Your task to perform on an android device: change the clock style Image 0: 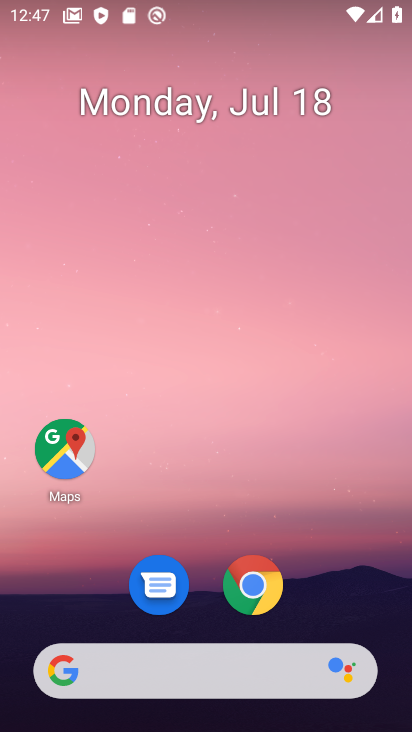
Step 0: press home button
Your task to perform on an android device: change the clock style Image 1: 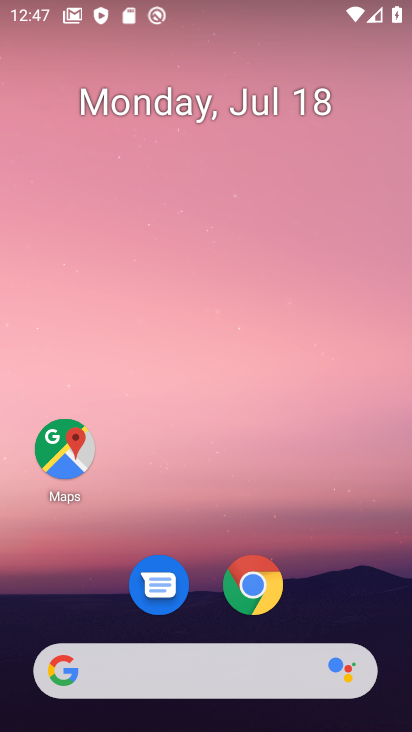
Step 1: drag from (210, 675) to (290, 34)
Your task to perform on an android device: change the clock style Image 2: 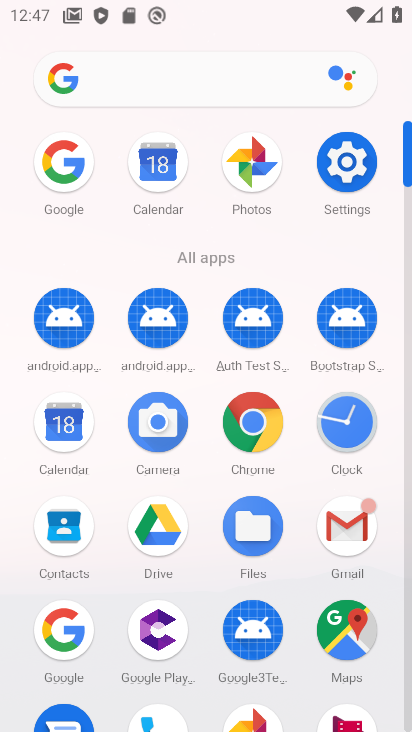
Step 2: click (334, 420)
Your task to perform on an android device: change the clock style Image 3: 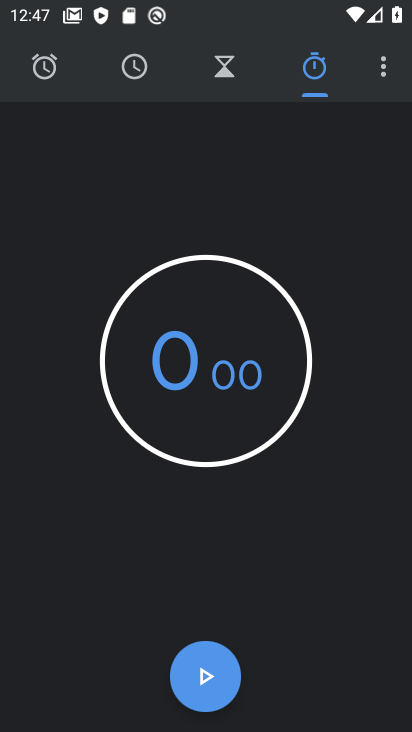
Step 3: click (384, 76)
Your task to perform on an android device: change the clock style Image 4: 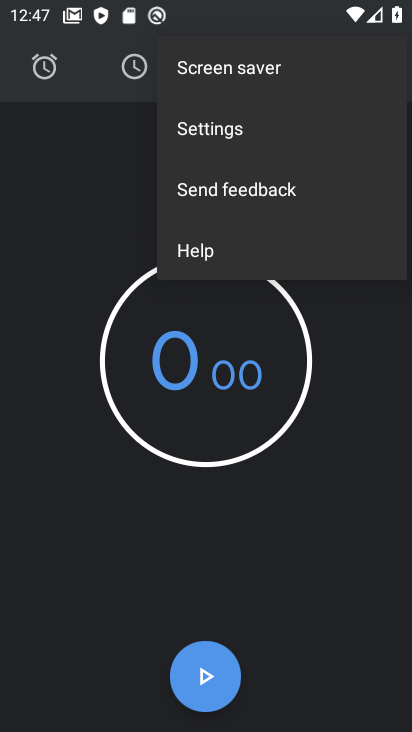
Step 4: click (231, 130)
Your task to perform on an android device: change the clock style Image 5: 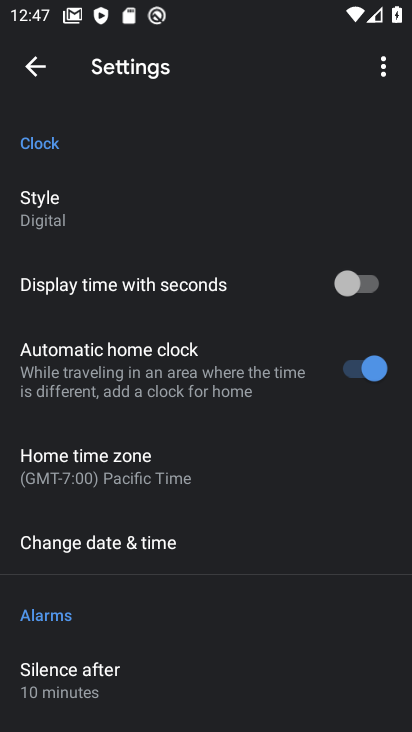
Step 5: click (61, 220)
Your task to perform on an android device: change the clock style Image 6: 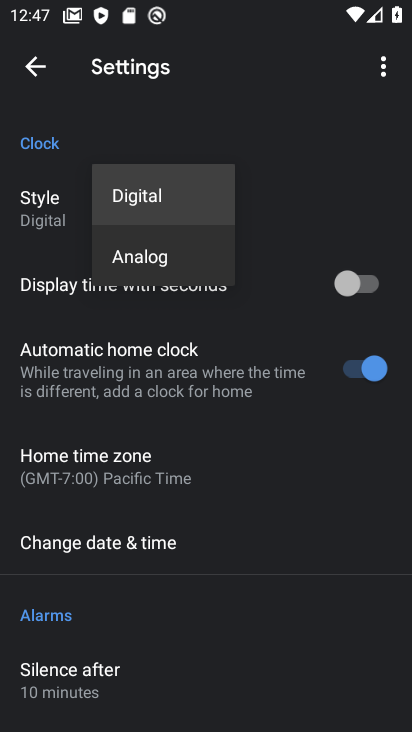
Step 6: click (127, 260)
Your task to perform on an android device: change the clock style Image 7: 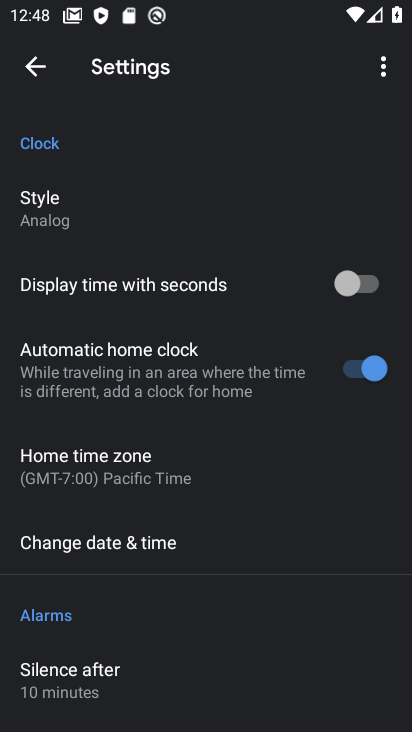
Step 7: task complete